Your task to perform on an android device: change your default location settings in chrome Image 0: 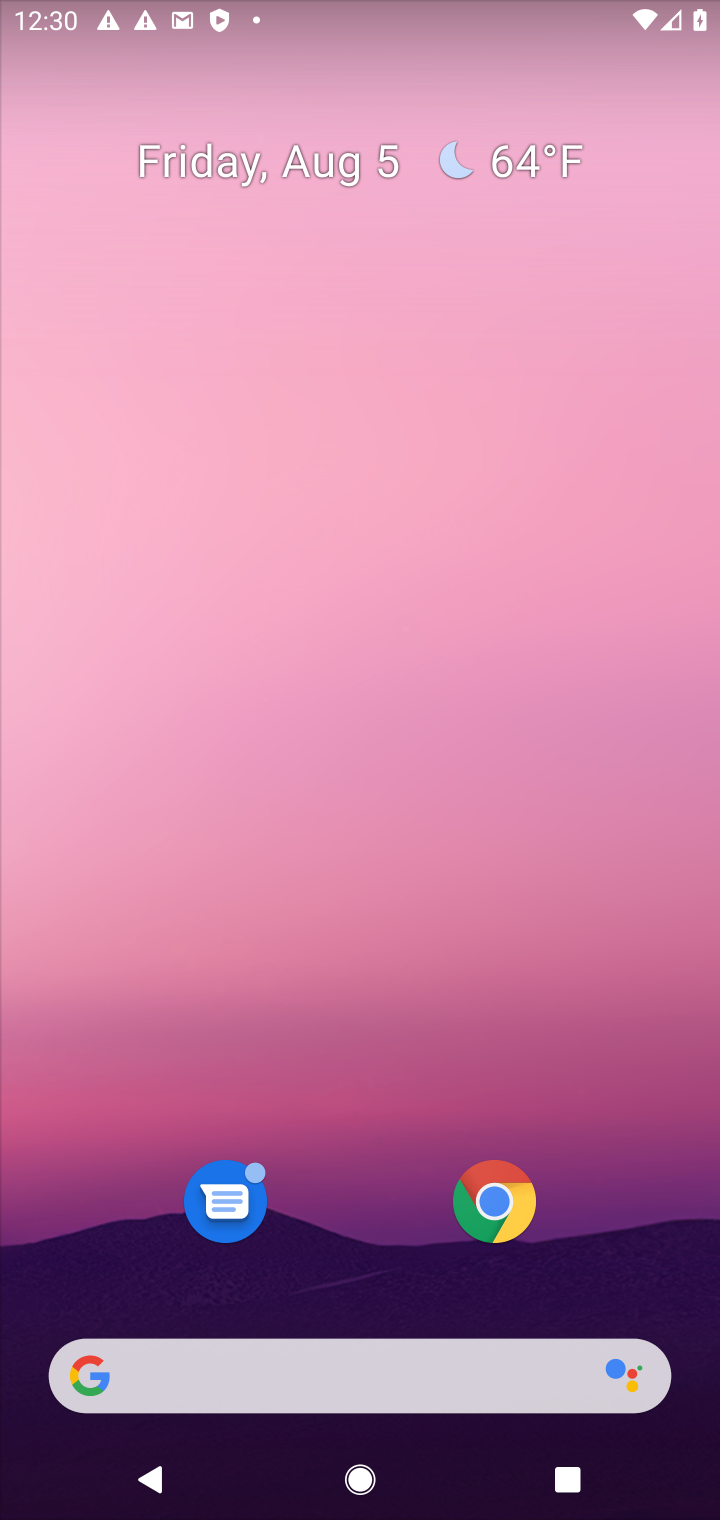
Step 0: click (521, 1204)
Your task to perform on an android device: change your default location settings in chrome Image 1: 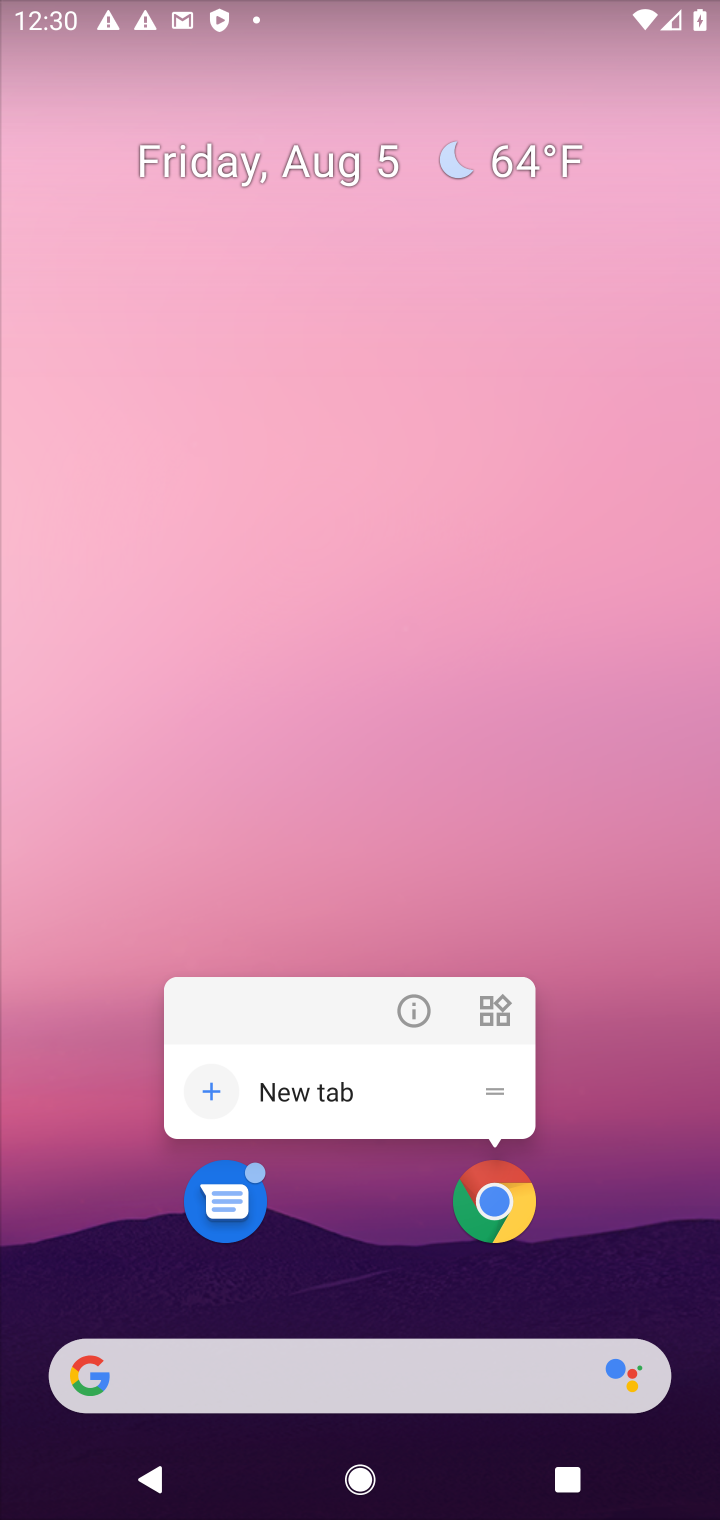
Step 1: click (526, 1205)
Your task to perform on an android device: change your default location settings in chrome Image 2: 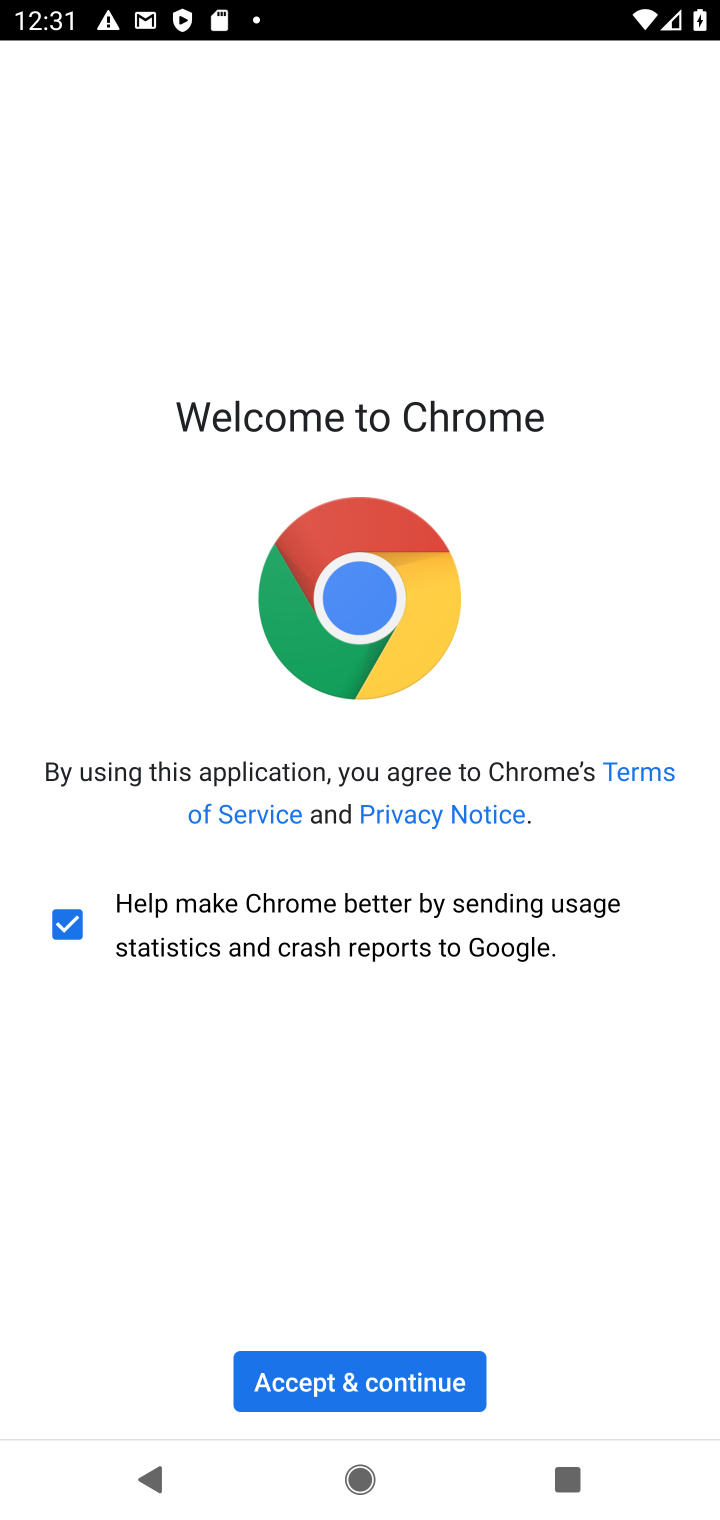
Step 2: click (378, 1404)
Your task to perform on an android device: change your default location settings in chrome Image 3: 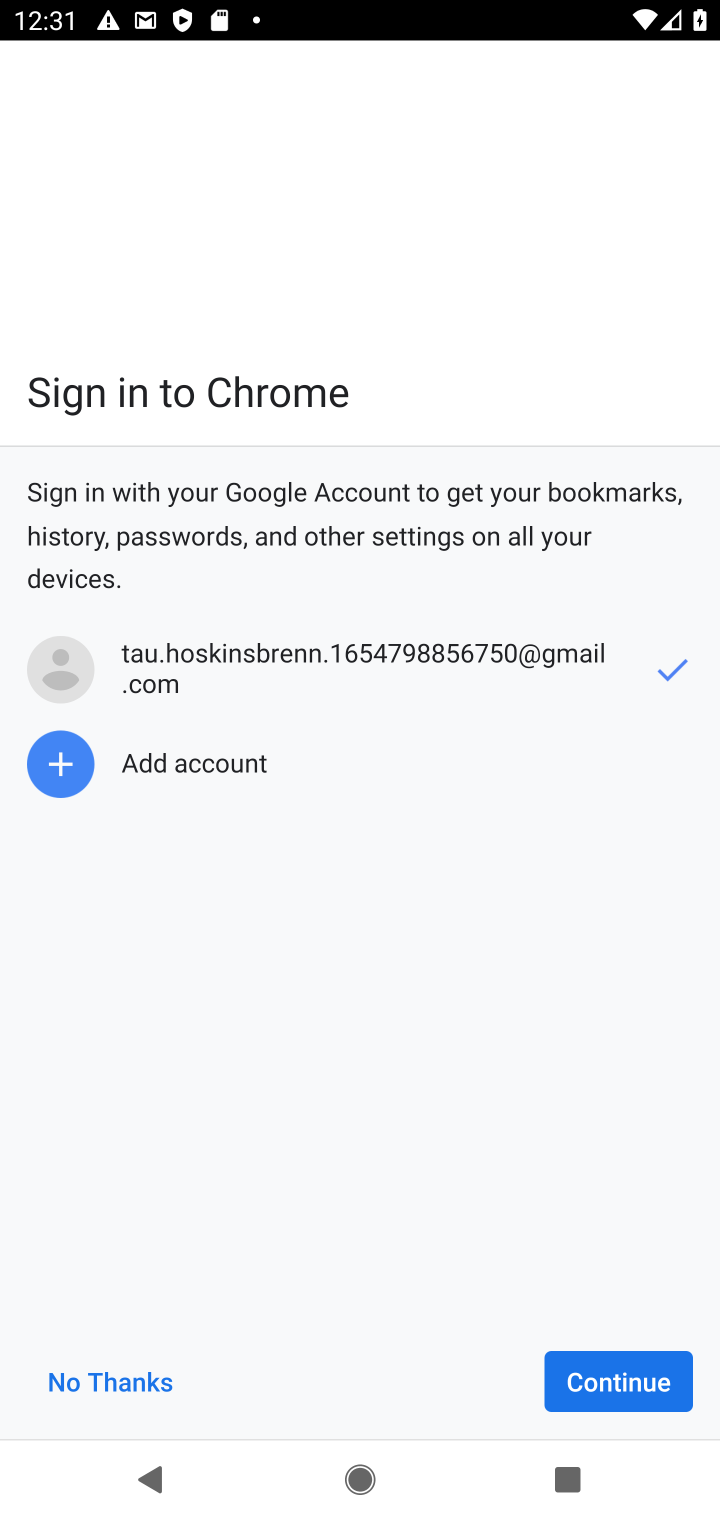
Step 3: click (612, 1398)
Your task to perform on an android device: change your default location settings in chrome Image 4: 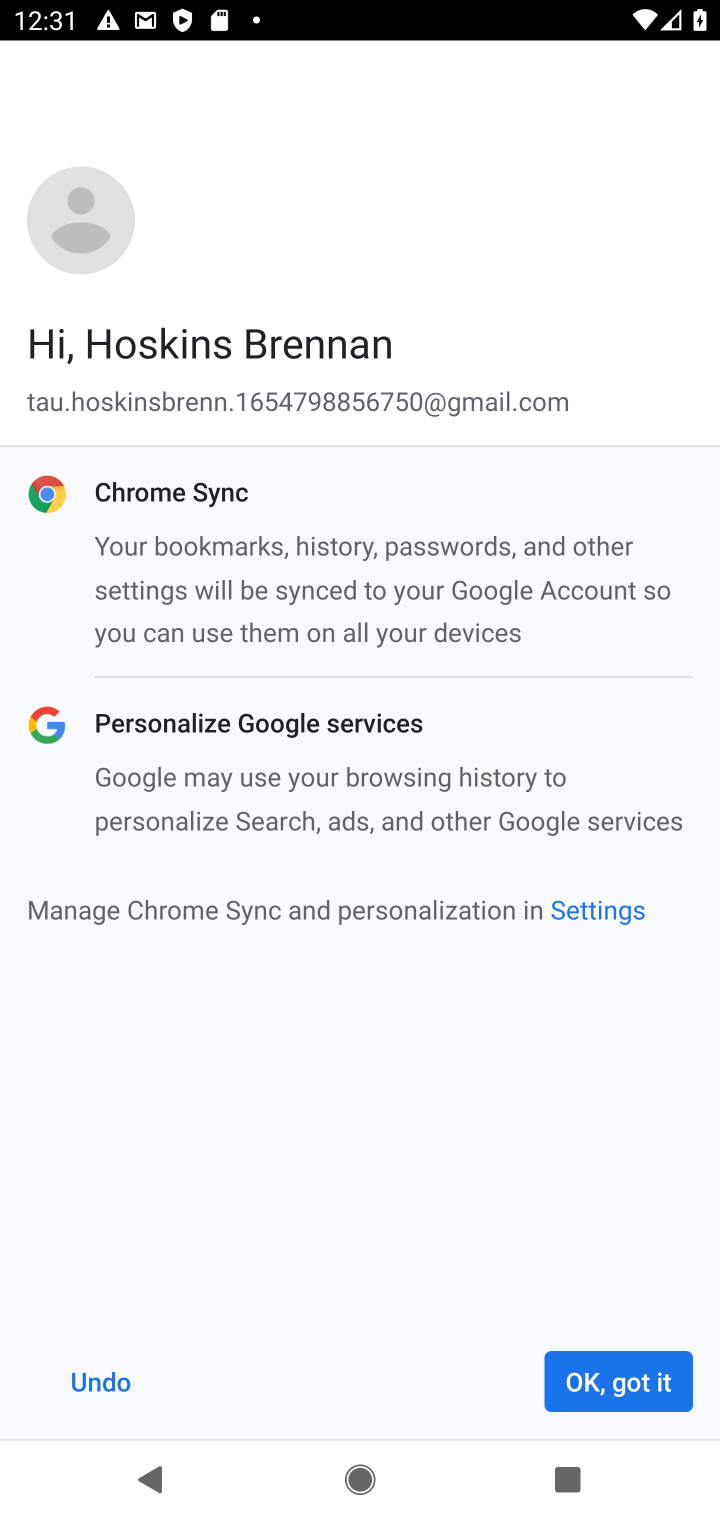
Step 4: click (601, 1385)
Your task to perform on an android device: change your default location settings in chrome Image 5: 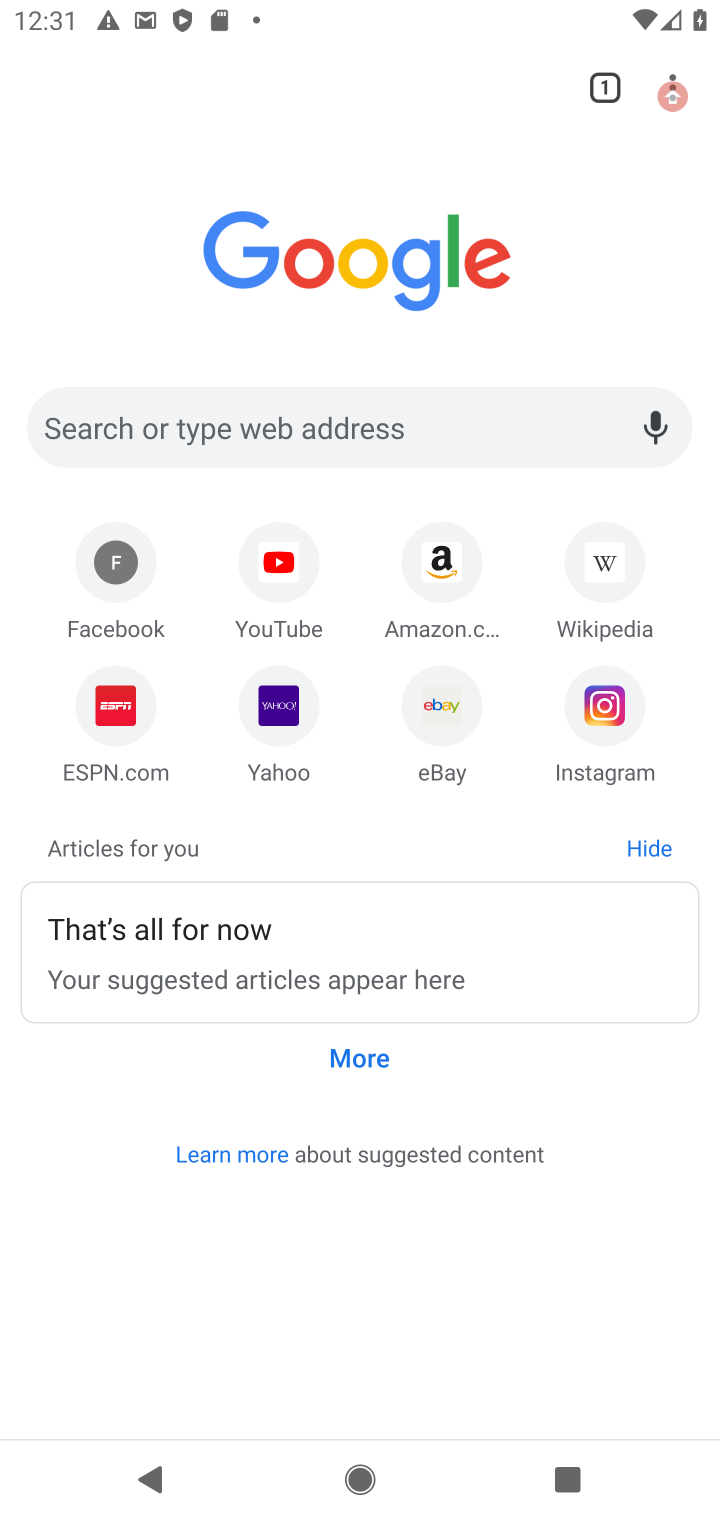
Step 5: click (684, 88)
Your task to perform on an android device: change your default location settings in chrome Image 6: 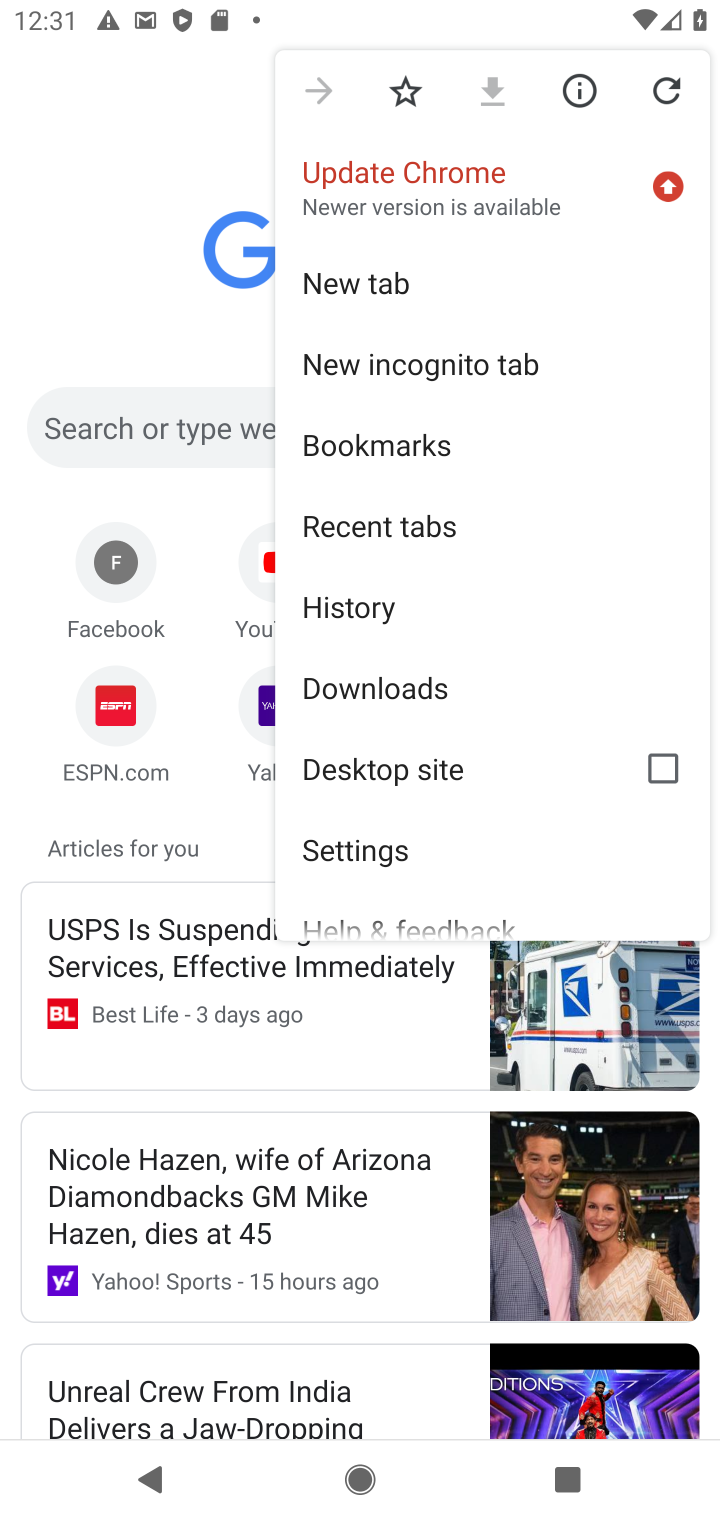
Step 6: click (405, 836)
Your task to perform on an android device: change your default location settings in chrome Image 7: 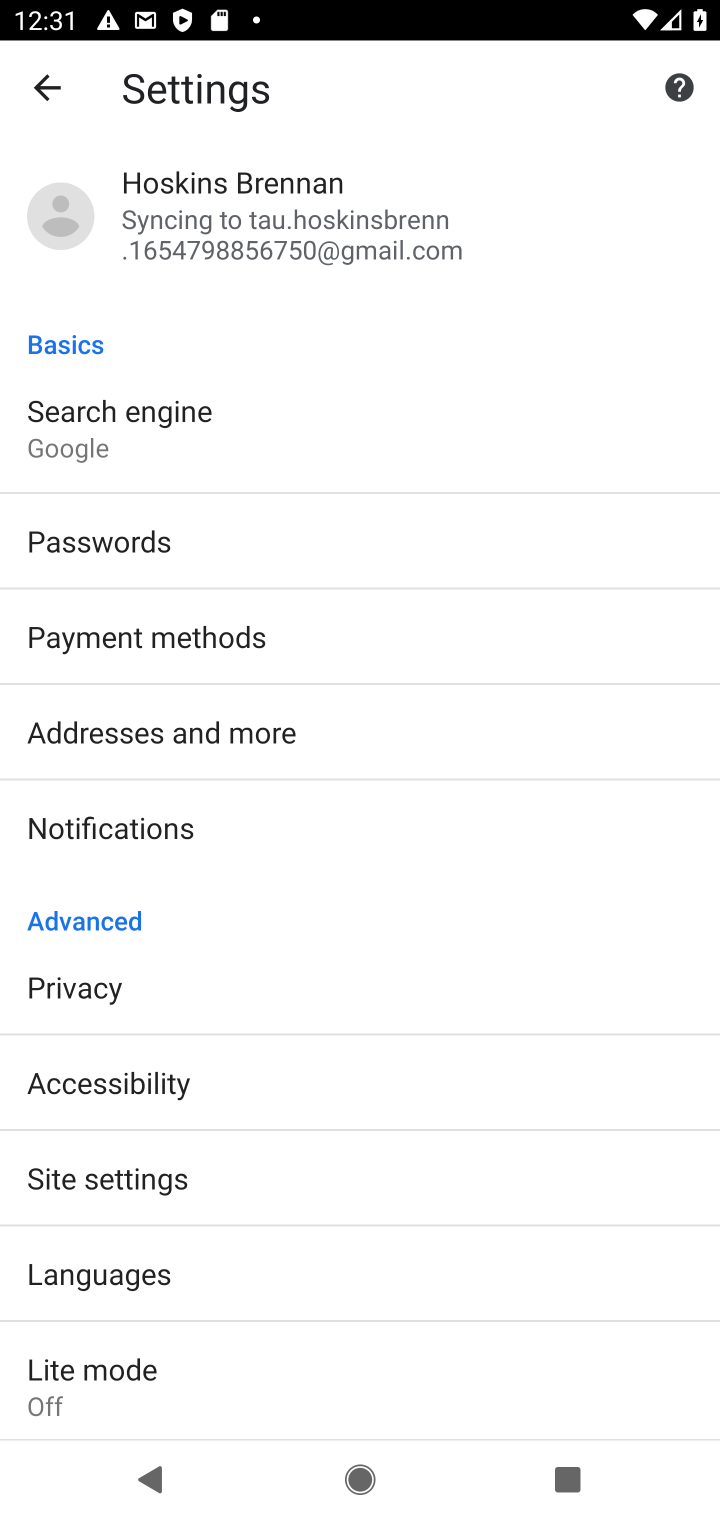
Step 7: click (220, 1183)
Your task to perform on an android device: change your default location settings in chrome Image 8: 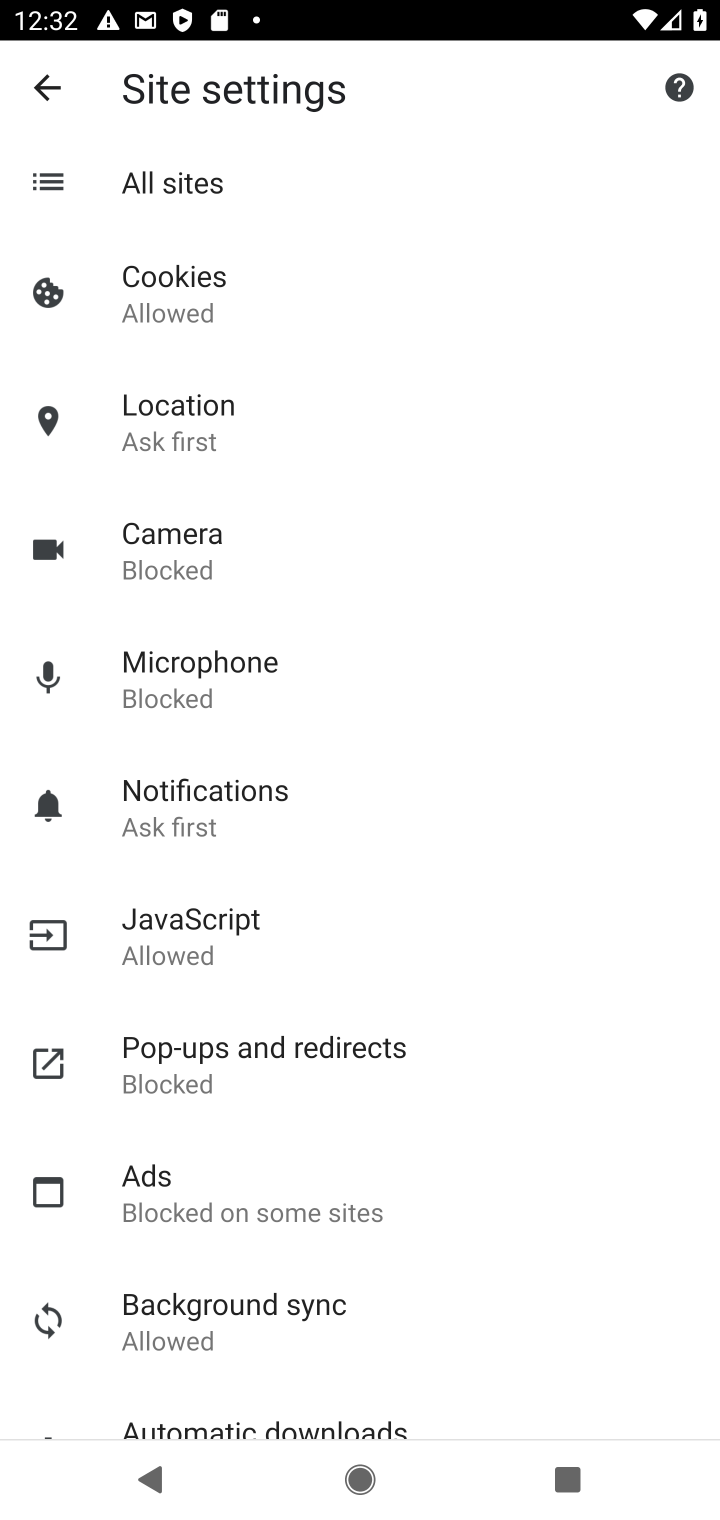
Step 8: click (312, 419)
Your task to perform on an android device: change your default location settings in chrome Image 9: 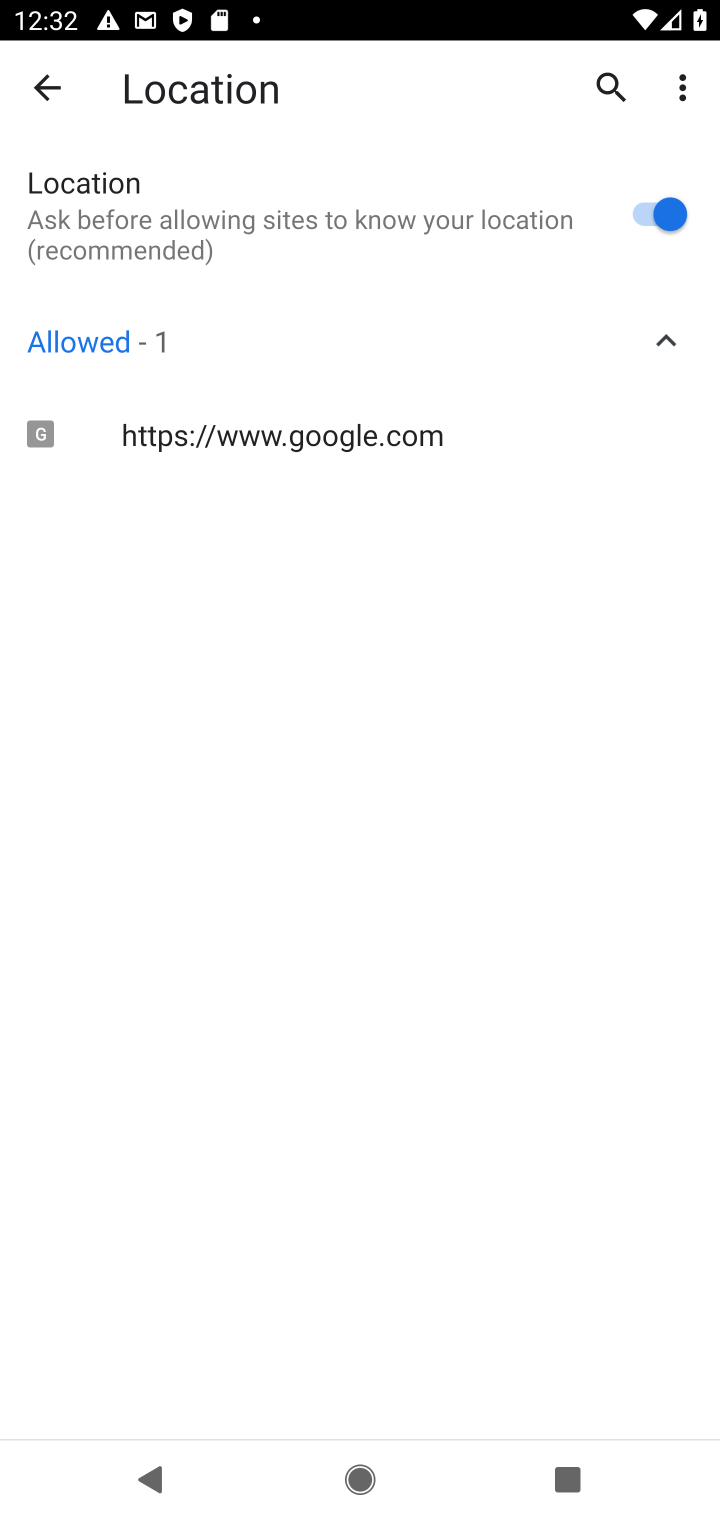
Step 9: click (657, 206)
Your task to perform on an android device: change your default location settings in chrome Image 10: 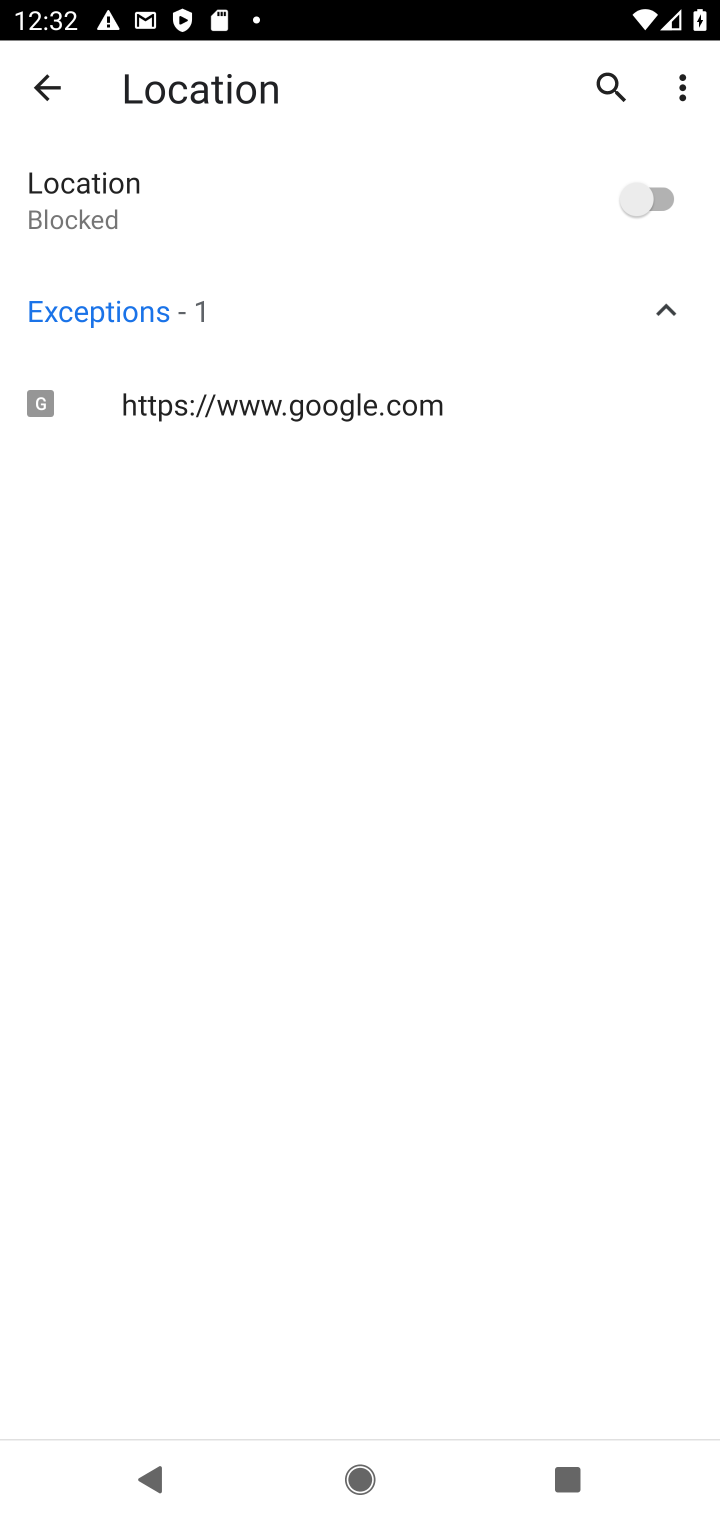
Step 10: task complete